Your task to perform on an android device: Search for seafood restaurants on Google Maps Image 0: 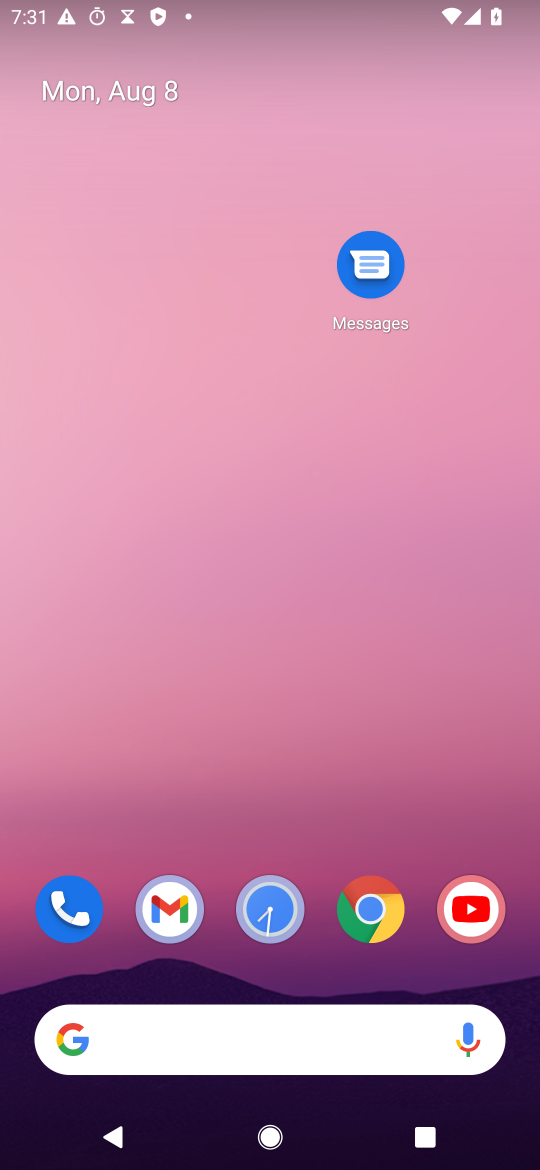
Step 0: drag from (193, 1062) to (397, 155)
Your task to perform on an android device: Search for seafood restaurants on Google Maps Image 1: 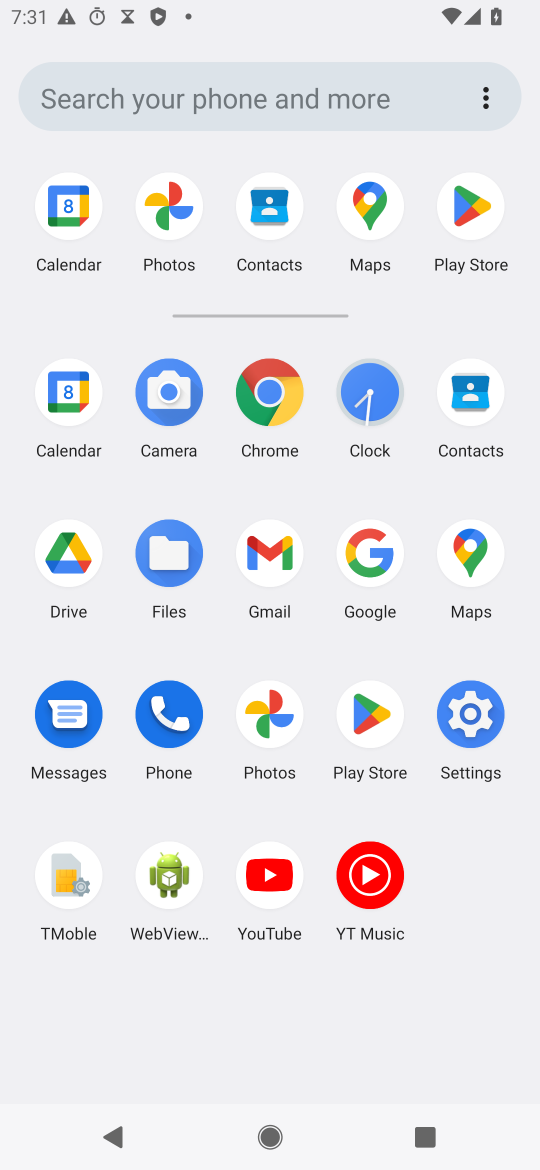
Step 1: click (479, 556)
Your task to perform on an android device: Search for seafood restaurants on Google Maps Image 2: 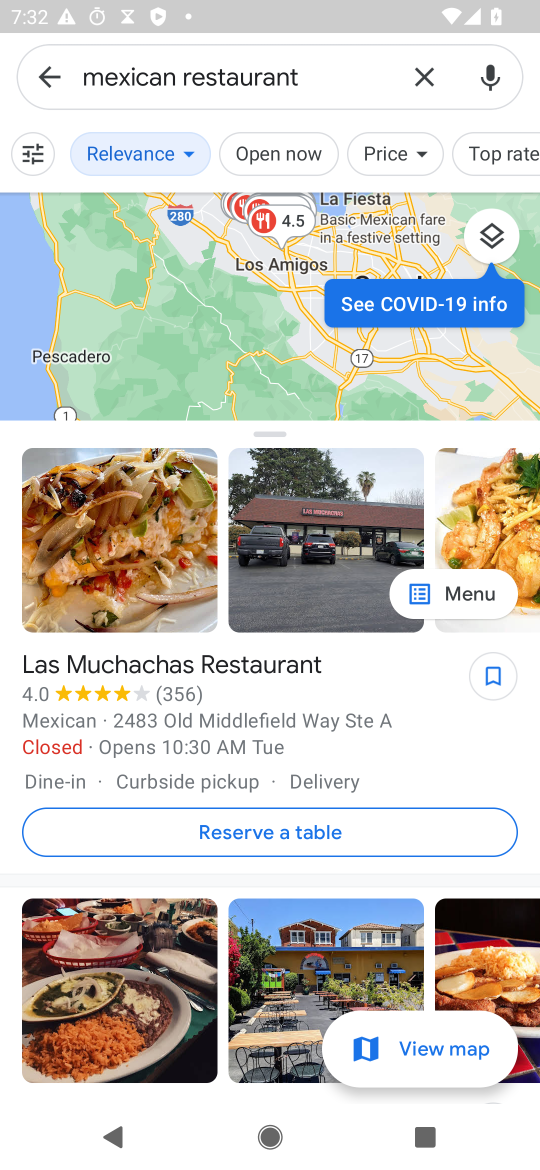
Step 2: click (423, 68)
Your task to perform on an android device: Search for seafood restaurants on Google Maps Image 3: 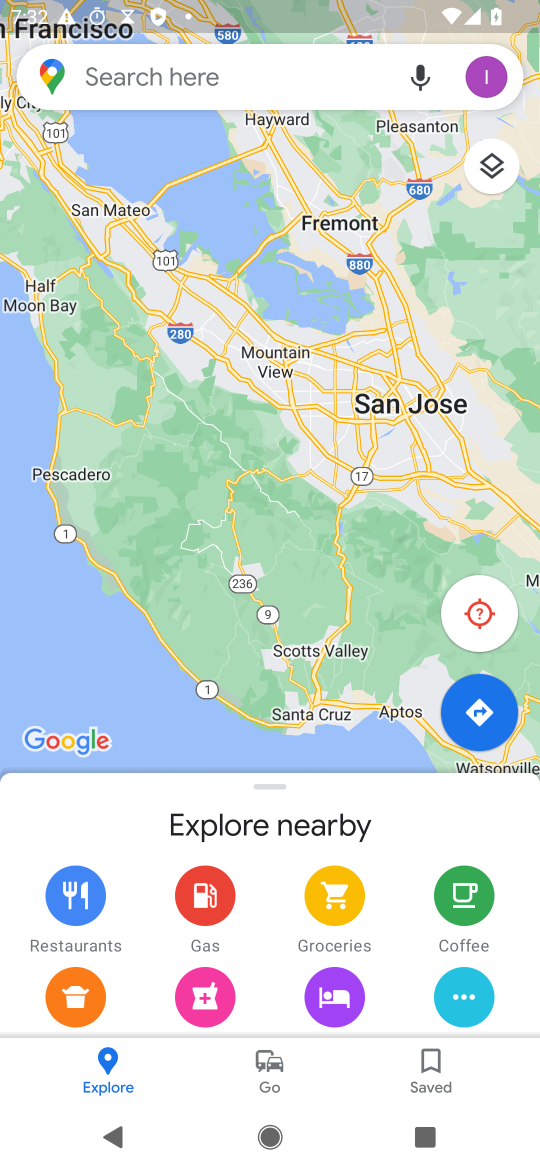
Step 3: click (205, 85)
Your task to perform on an android device: Search for seafood restaurants on Google Maps Image 4: 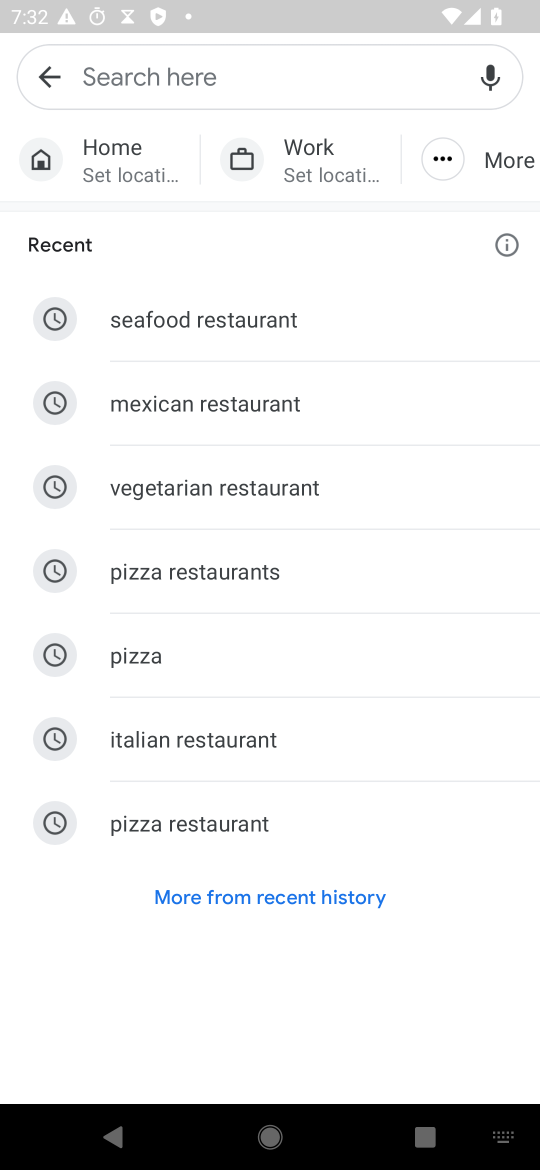
Step 4: click (214, 319)
Your task to perform on an android device: Search for seafood restaurants on Google Maps Image 5: 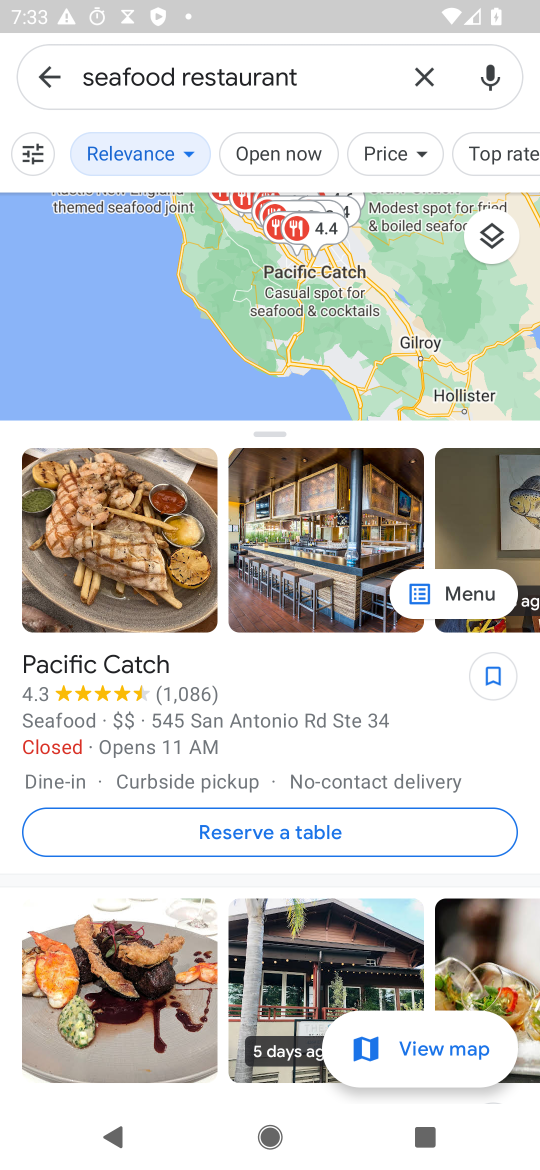
Step 5: task complete